Your task to perform on an android device: Show me popular videos on Youtube Image 0: 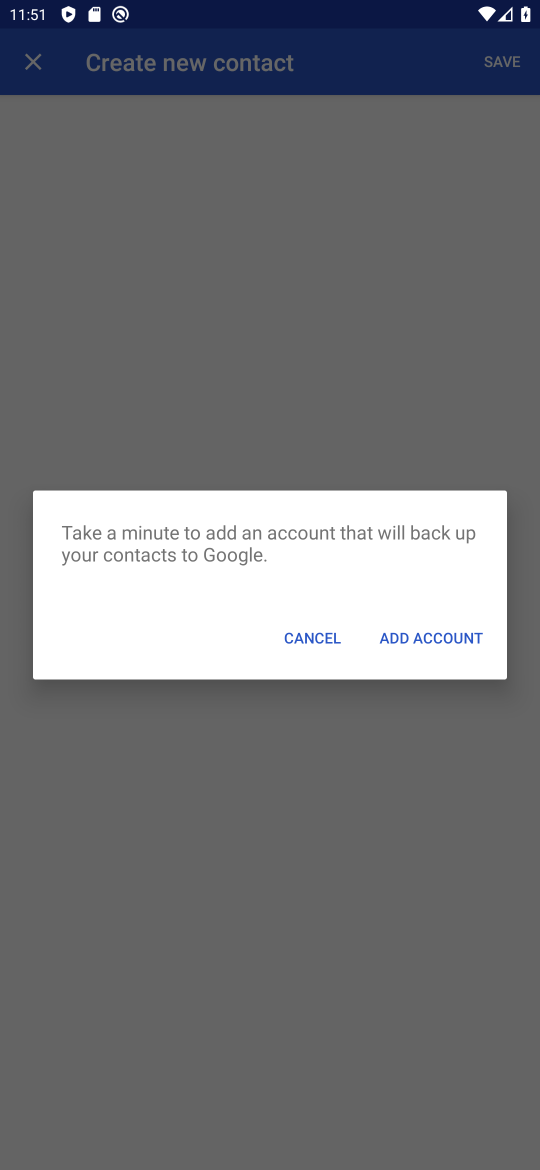
Step 0: press home button
Your task to perform on an android device: Show me popular videos on Youtube Image 1: 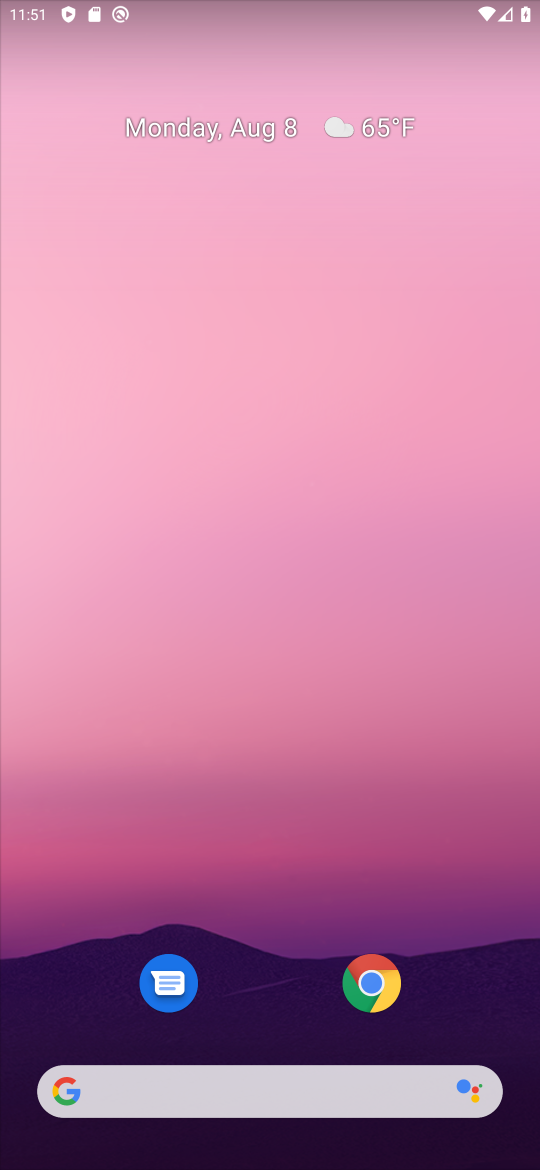
Step 1: drag from (274, 1029) to (175, 8)
Your task to perform on an android device: Show me popular videos on Youtube Image 2: 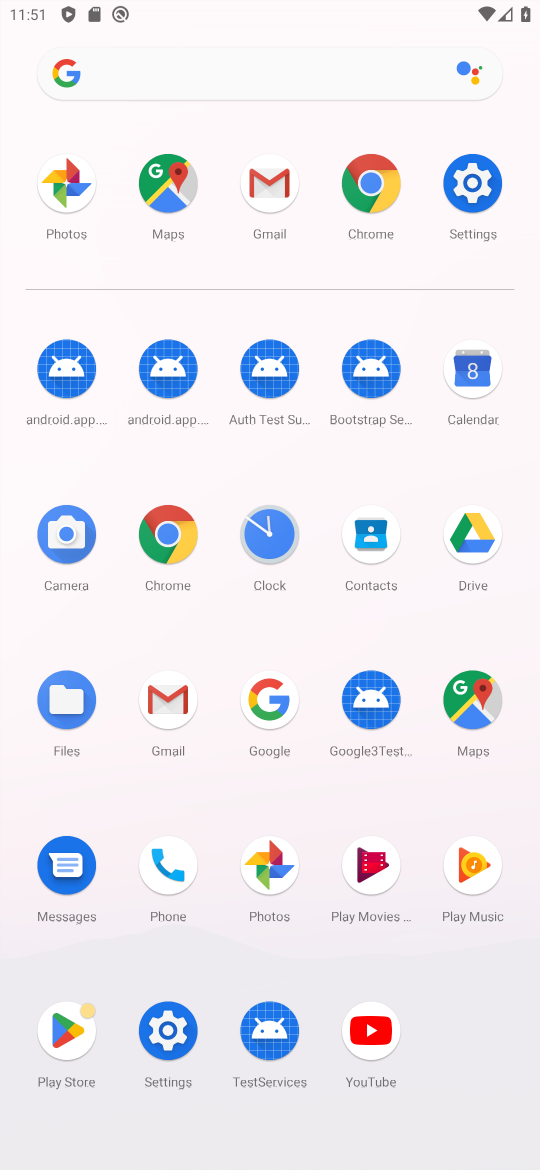
Step 2: click (365, 1081)
Your task to perform on an android device: Show me popular videos on Youtube Image 3: 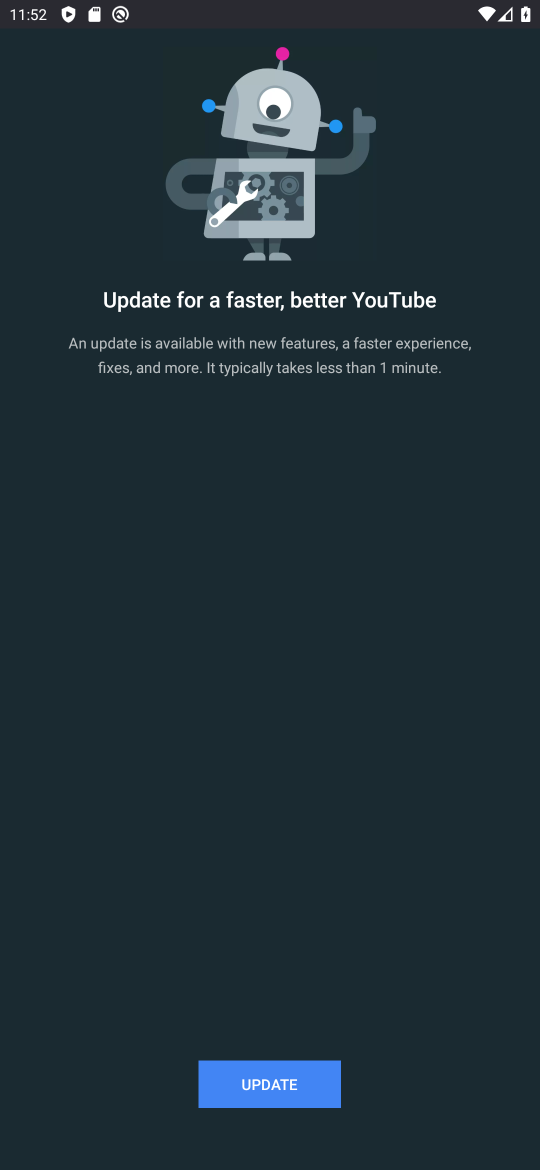
Step 3: click (254, 1066)
Your task to perform on an android device: Show me popular videos on Youtube Image 4: 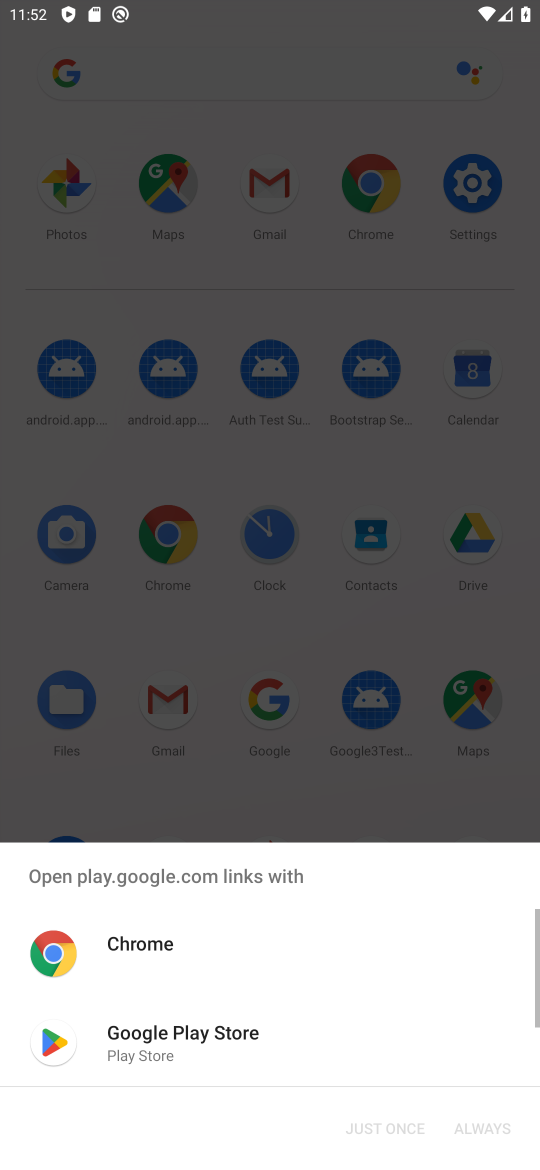
Step 4: click (209, 1038)
Your task to perform on an android device: Show me popular videos on Youtube Image 5: 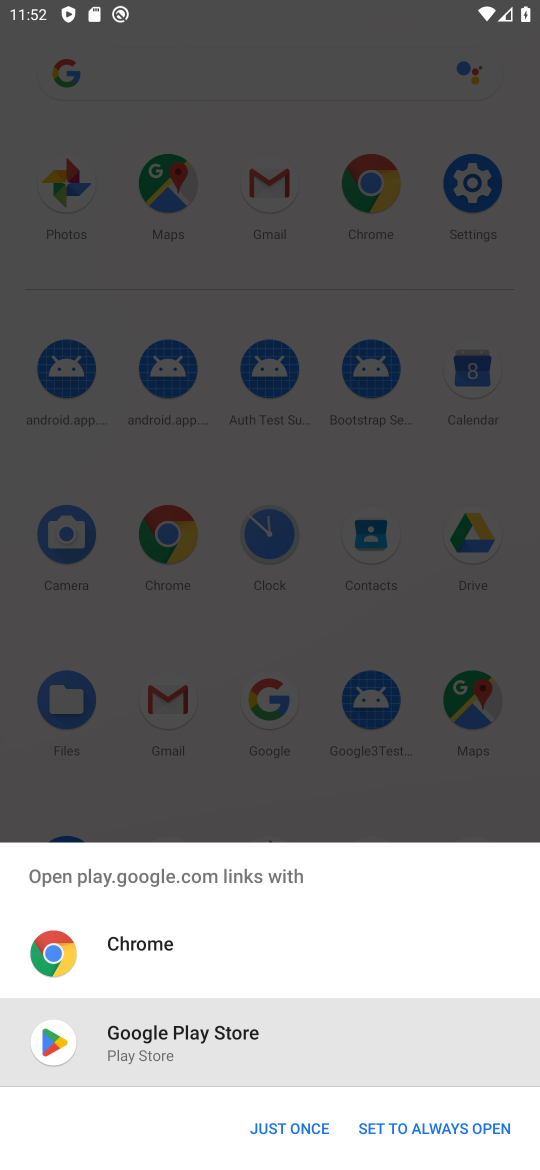
Step 5: click (304, 1121)
Your task to perform on an android device: Show me popular videos on Youtube Image 6: 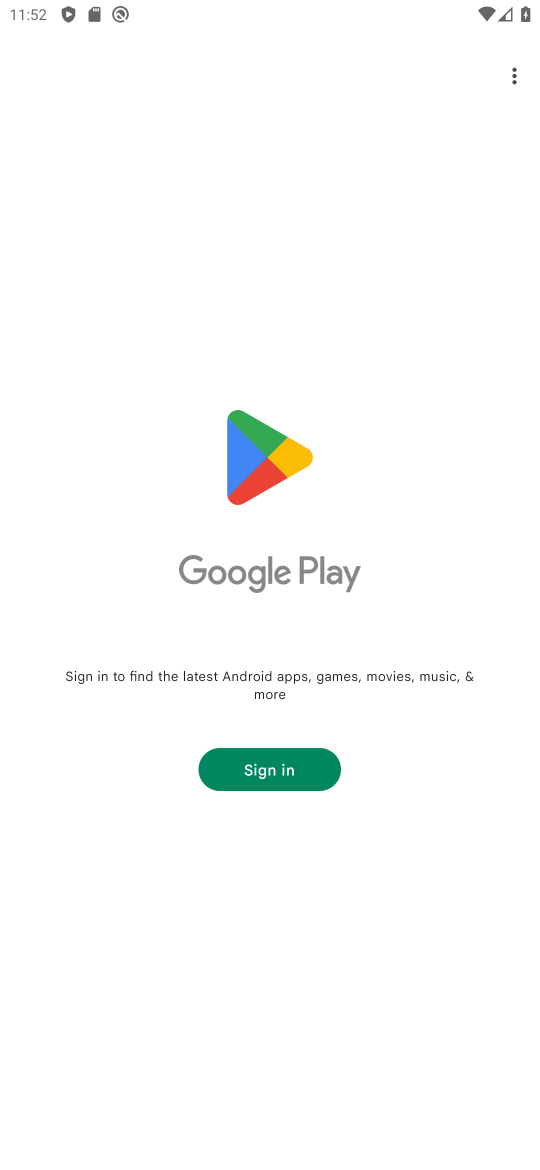
Step 6: task complete